Your task to perform on an android device: see tabs open on other devices in the chrome app Image 0: 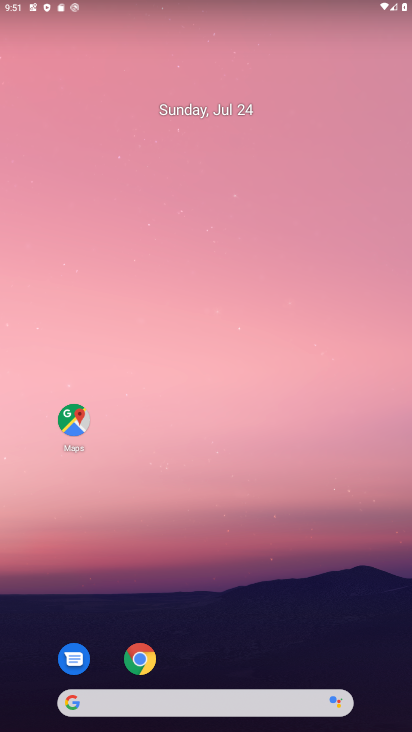
Step 0: click (142, 663)
Your task to perform on an android device: see tabs open on other devices in the chrome app Image 1: 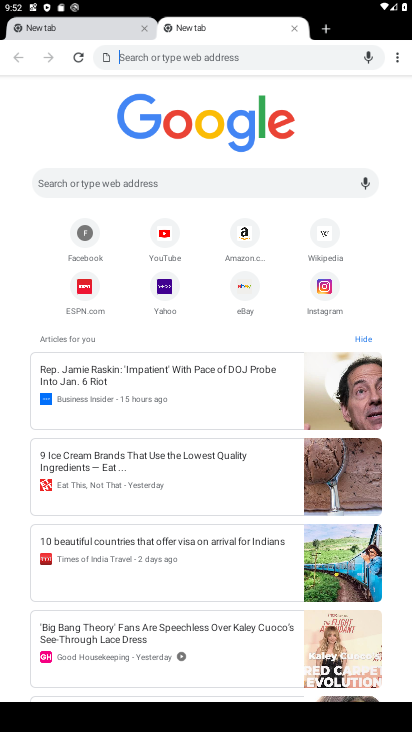
Step 1: click (396, 61)
Your task to perform on an android device: see tabs open on other devices in the chrome app Image 2: 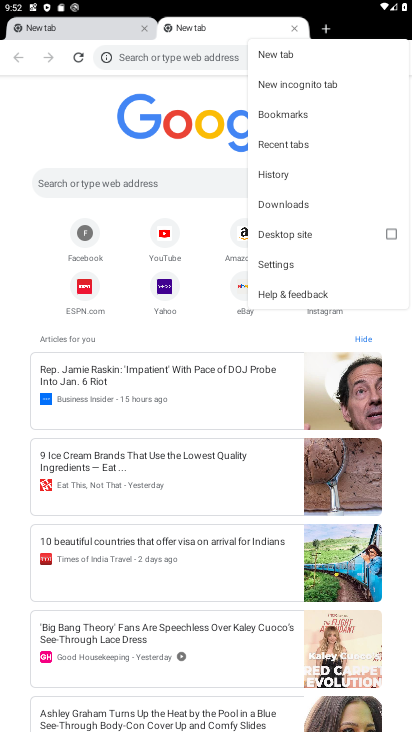
Step 2: click (56, 133)
Your task to perform on an android device: see tabs open on other devices in the chrome app Image 3: 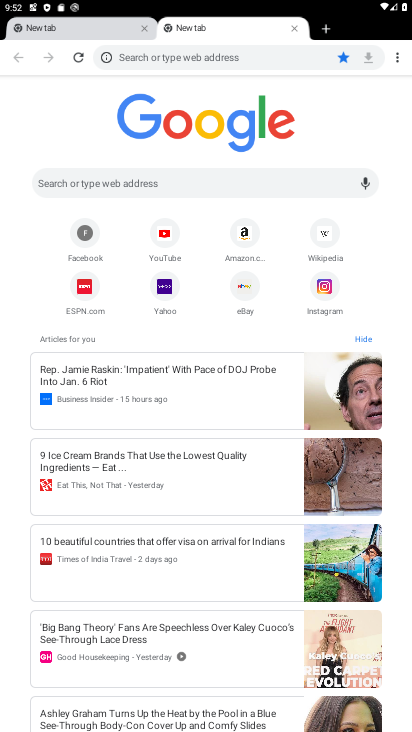
Step 3: click (392, 58)
Your task to perform on an android device: see tabs open on other devices in the chrome app Image 4: 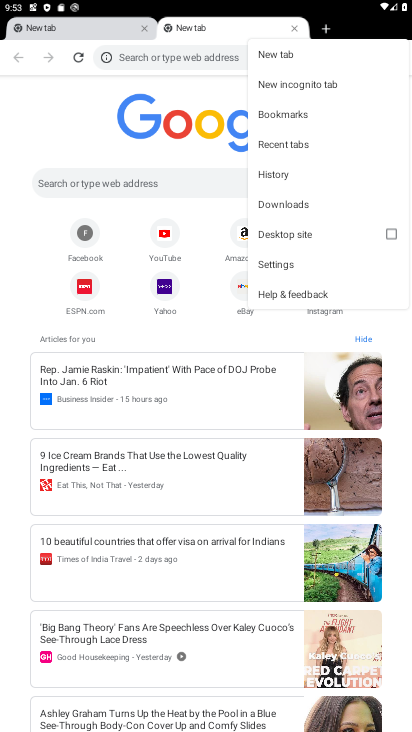
Step 4: click (282, 138)
Your task to perform on an android device: see tabs open on other devices in the chrome app Image 5: 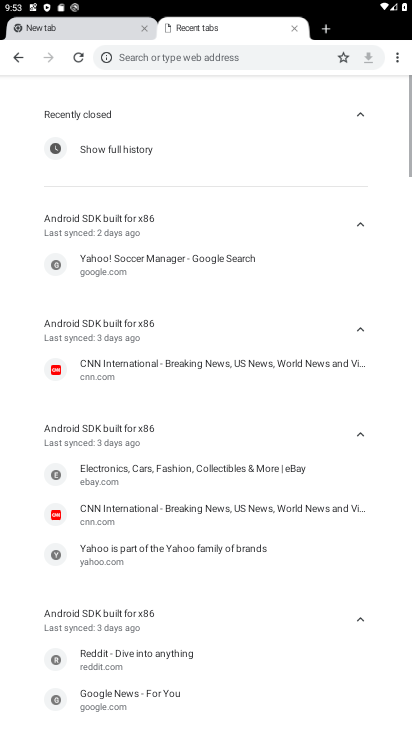
Step 5: task complete